Your task to perform on an android device: change notification settings in the gmail app Image 0: 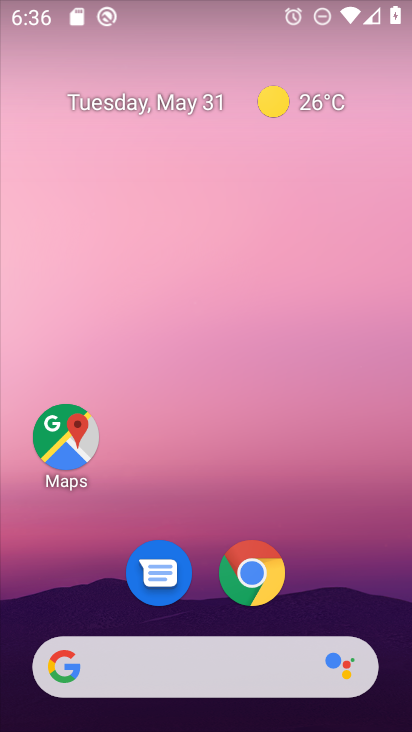
Step 0: drag from (386, 652) to (248, 38)
Your task to perform on an android device: change notification settings in the gmail app Image 1: 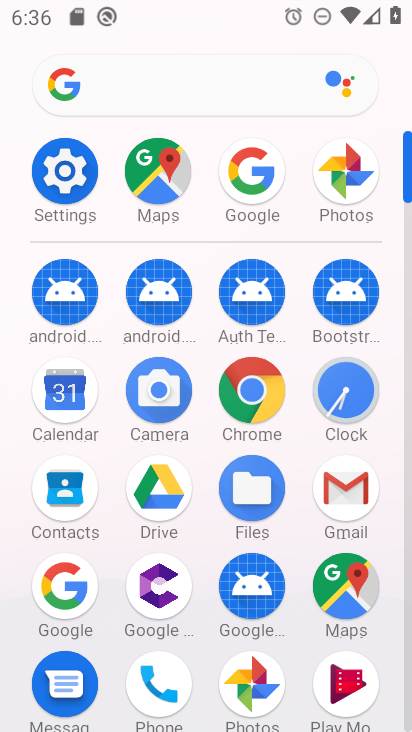
Step 1: click (341, 504)
Your task to perform on an android device: change notification settings in the gmail app Image 2: 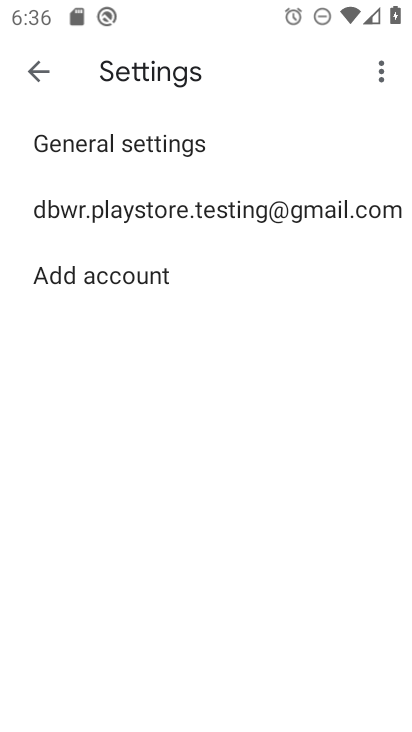
Step 2: click (130, 222)
Your task to perform on an android device: change notification settings in the gmail app Image 3: 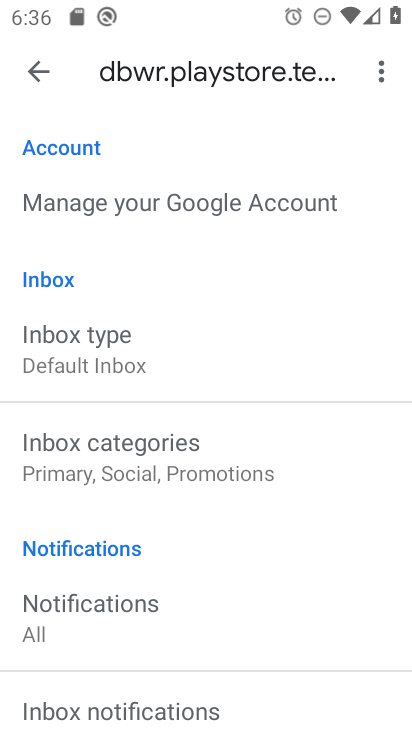
Step 3: click (95, 605)
Your task to perform on an android device: change notification settings in the gmail app Image 4: 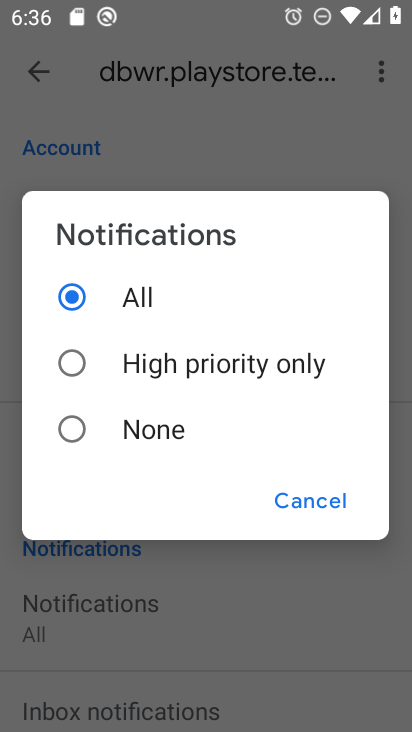
Step 4: click (74, 431)
Your task to perform on an android device: change notification settings in the gmail app Image 5: 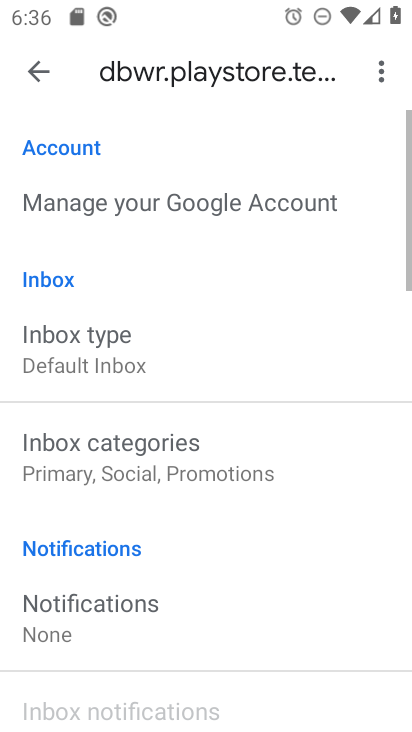
Step 5: task complete